Your task to perform on an android device: Show me popular games on the Play Store Image 0: 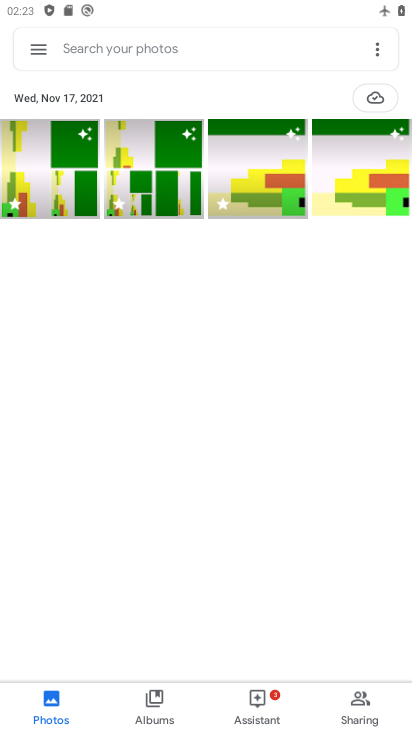
Step 0: press home button
Your task to perform on an android device: Show me popular games on the Play Store Image 1: 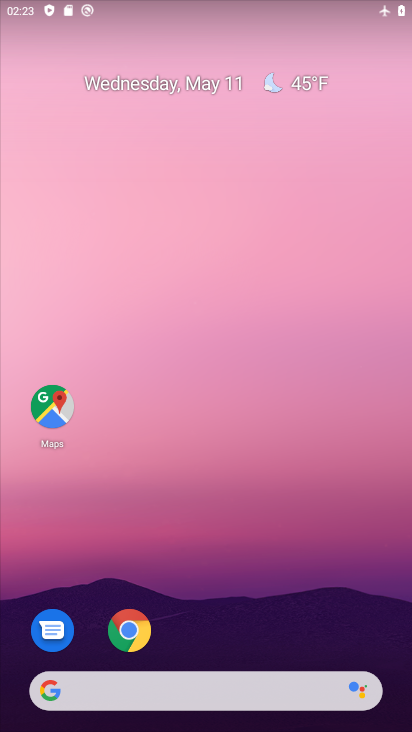
Step 1: drag from (205, 727) to (205, 126)
Your task to perform on an android device: Show me popular games on the Play Store Image 2: 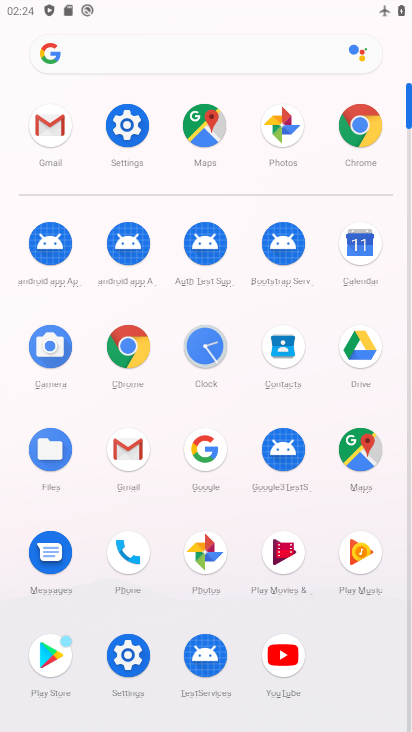
Step 2: click (54, 657)
Your task to perform on an android device: Show me popular games on the Play Store Image 3: 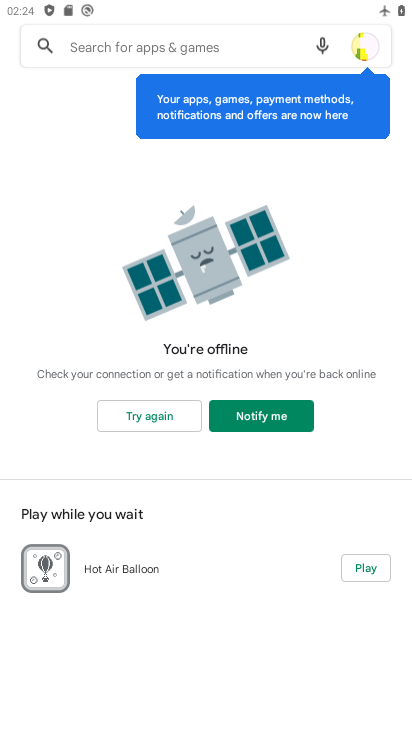
Step 3: task complete